Your task to perform on an android device: turn off improve location accuracy Image 0: 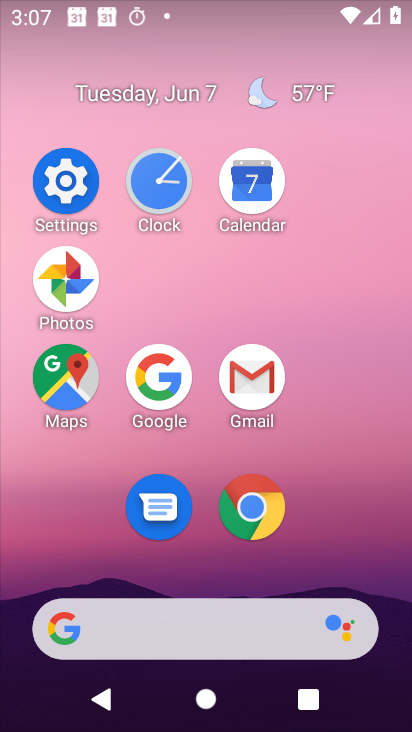
Step 0: click (63, 185)
Your task to perform on an android device: turn off improve location accuracy Image 1: 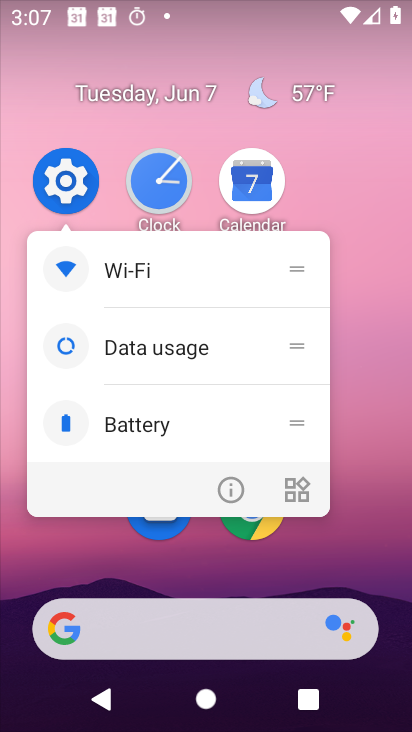
Step 1: click (61, 206)
Your task to perform on an android device: turn off improve location accuracy Image 2: 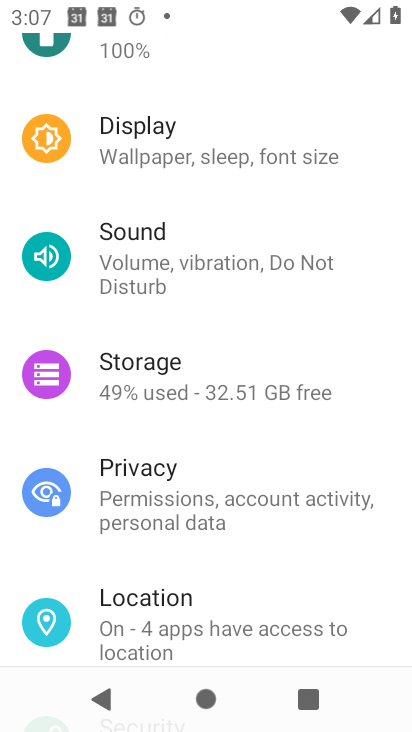
Step 2: drag from (275, 578) to (265, 233)
Your task to perform on an android device: turn off improve location accuracy Image 3: 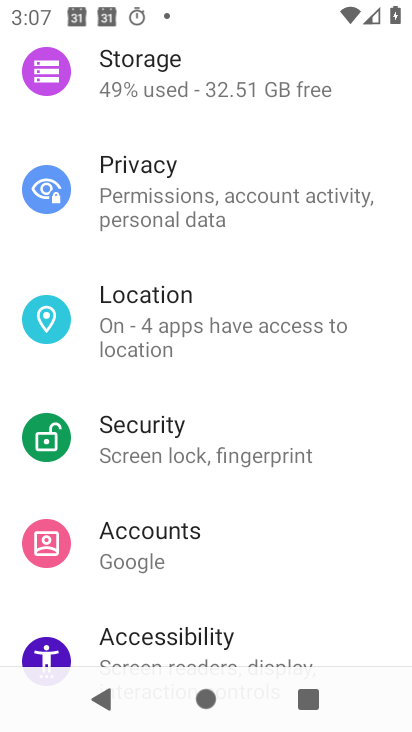
Step 3: drag from (250, 159) to (239, 589)
Your task to perform on an android device: turn off improve location accuracy Image 4: 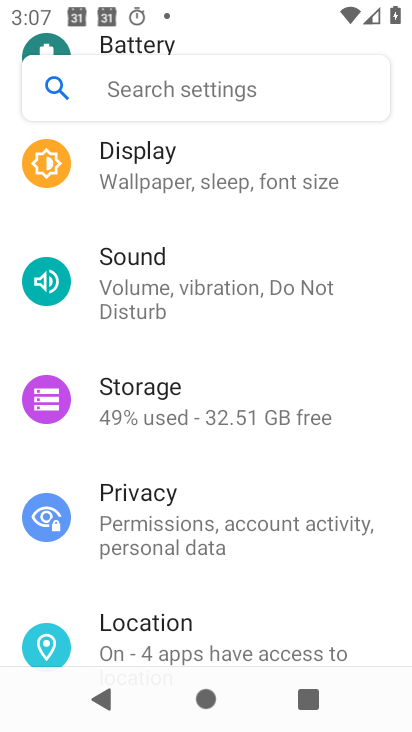
Step 4: click (224, 633)
Your task to perform on an android device: turn off improve location accuracy Image 5: 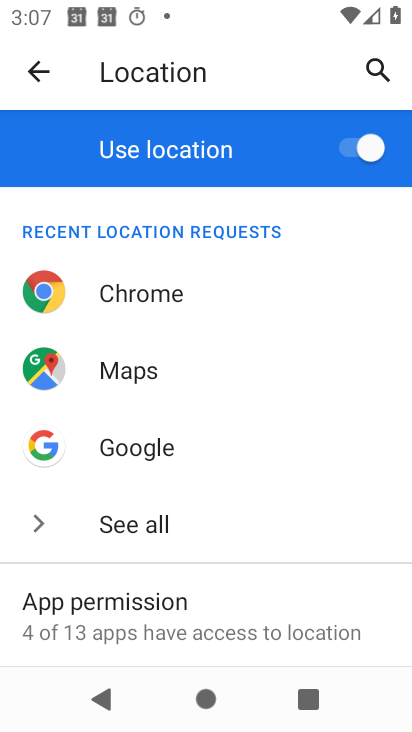
Step 5: drag from (203, 567) to (266, 236)
Your task to perform on an android device: turn off improve location accuracy Image 6: 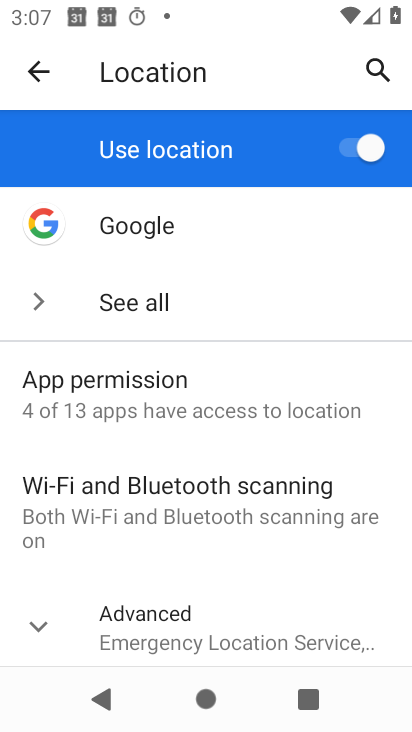
Step 6: click (184, 605)
Your task to perform on an android device: turn off improve location accuracy Image 7: 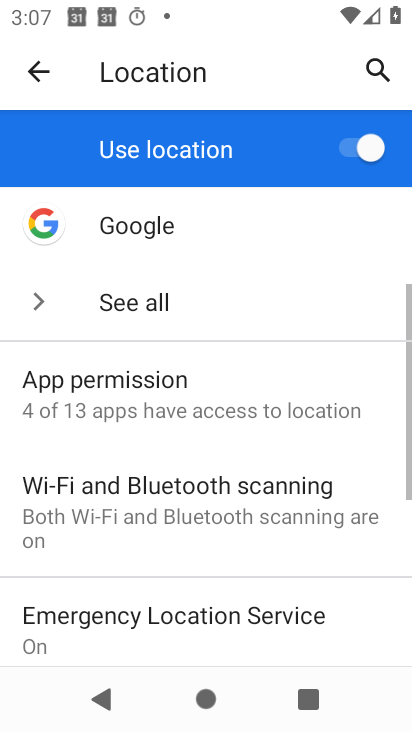
Step 7: drag from (184, 605) to (179, 316)
Your task to perform on an android device: turn off improve location accuracy Image 8: 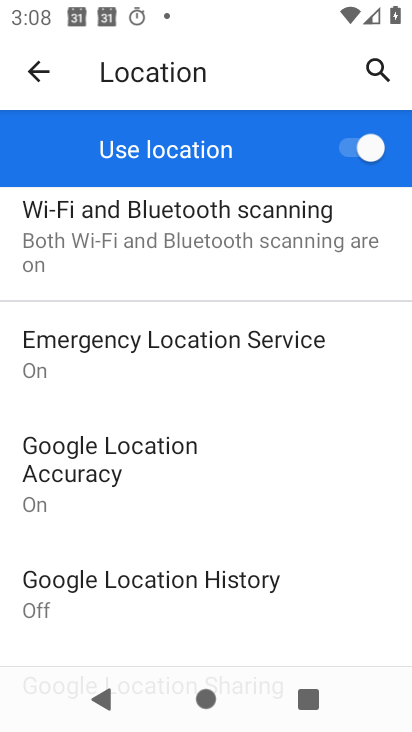
Step 8: click (136, 464)
Your task to perform on an android device: turn off improve location accuracy Image 9: 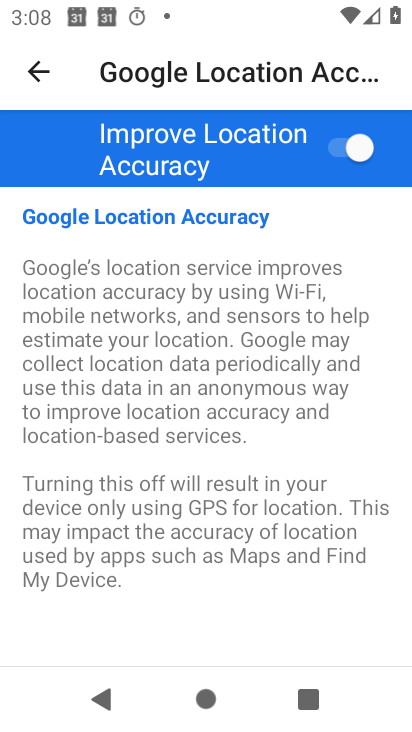
Step 9: click (364, 145)
Your task to perform on an android device: turn off improve location accuracy Image 10: 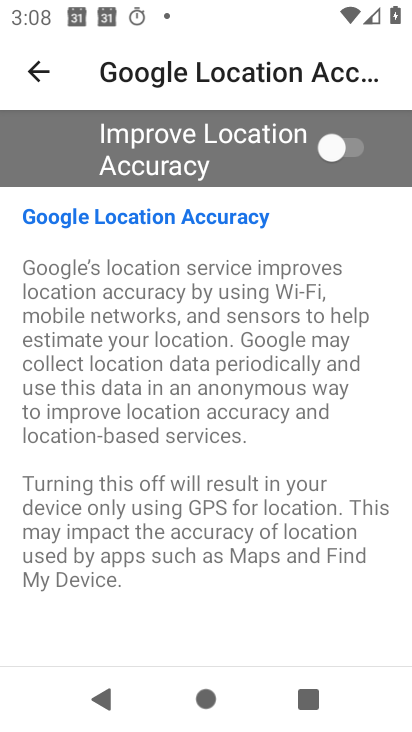
Step 10: task complete